Your task to perform on an android device: What's on my calendar tomorrow? Image 0: 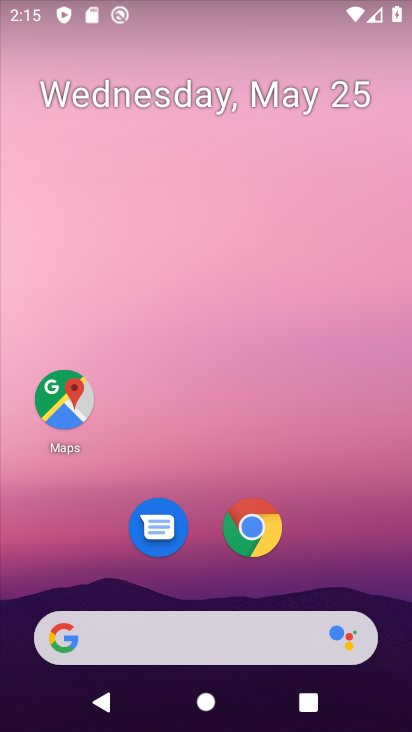
Step 0: drag from (190, 444) to (254, 32)
Your task to perform on an android device: What's on my calendar tomorrow? Image 1: 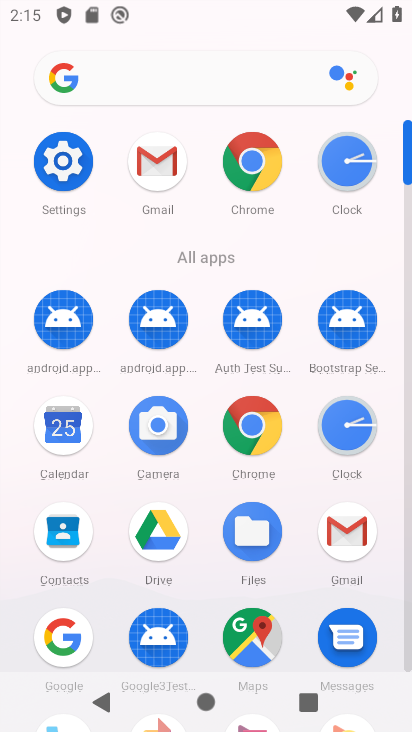
Step 1: click (57, 435)
Your task to perform on an android device: What's on my calendar tomorrow? Image 2: 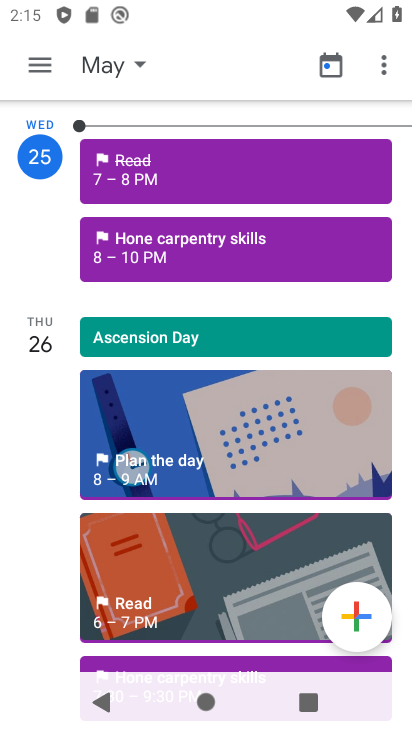
Step 2: click (147, 340)
Your task to perform on an android device: What's on my calendar tomorrow? Image 3: 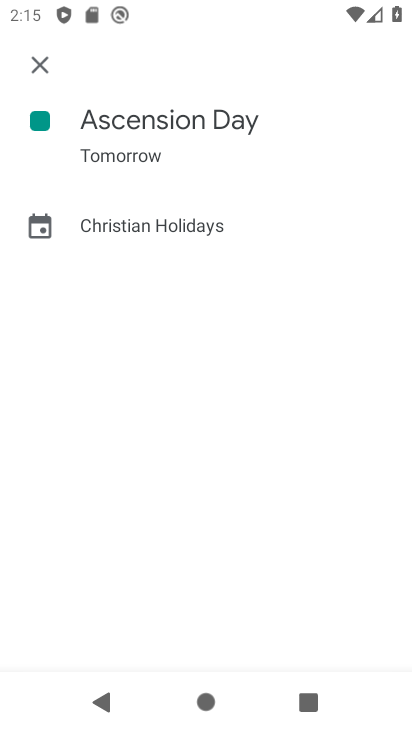
Step 3: task complete